Your task to perform on an android device: turn off notifications in google photos Image 0: 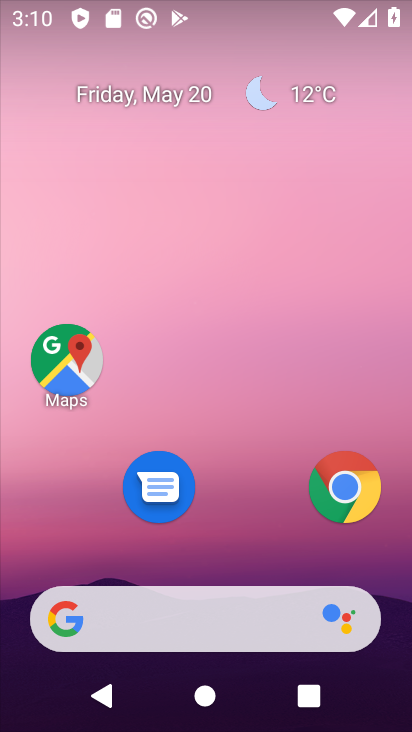
Step 0: drag from (256, 542) to (196, 135)
Your task to perform on an android device: turn off notifications in google photos Image 1: 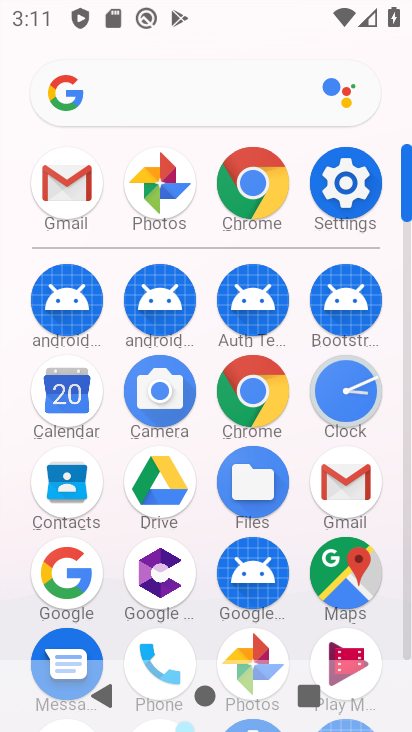
Step 1: click (266, 636)
Your task to perform on an android device: turn off notifications in google photos Image 2: 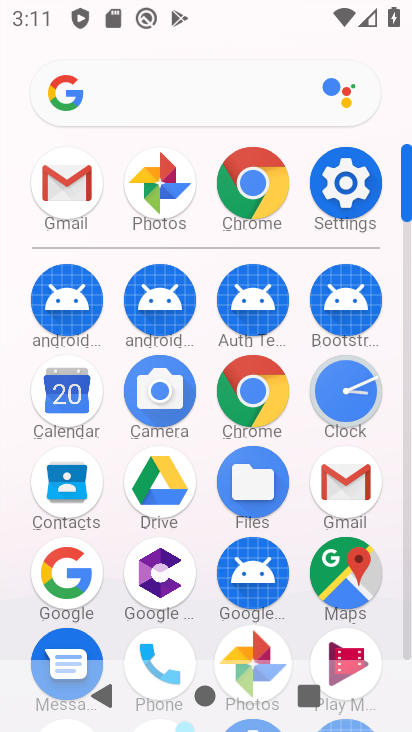
Step 2: click (259, 652)
Your task to perform on an android device: turn off notifications in google photos Image 3: 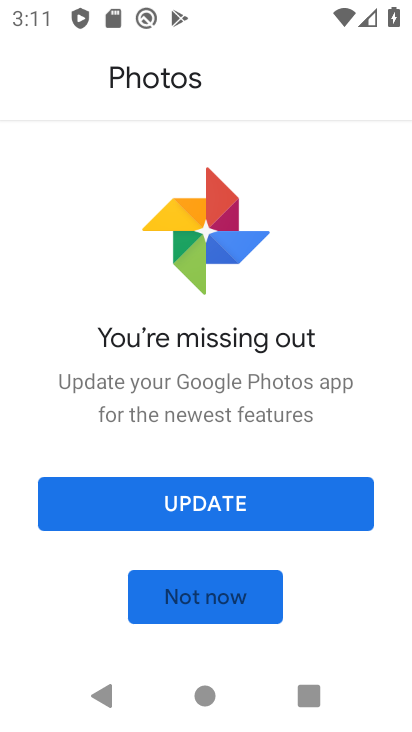
Step 3: click (199, 593)
Your task to perform on an android device: turn off notifications in google photos Image 4: 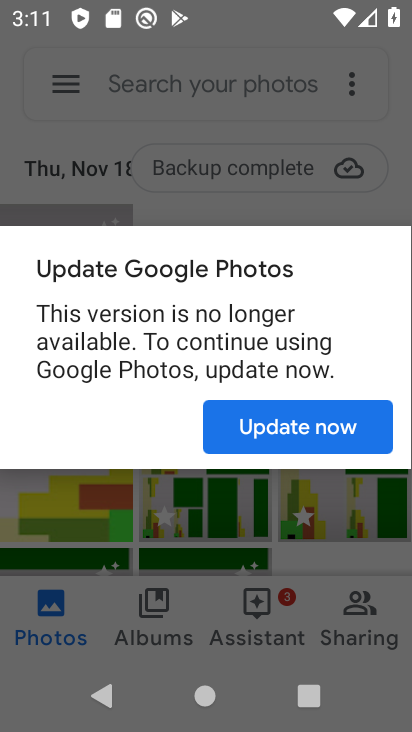
Step 4: click (312, 429)
Your task to perform on an android device: turn off notifications in google photos Image 5: 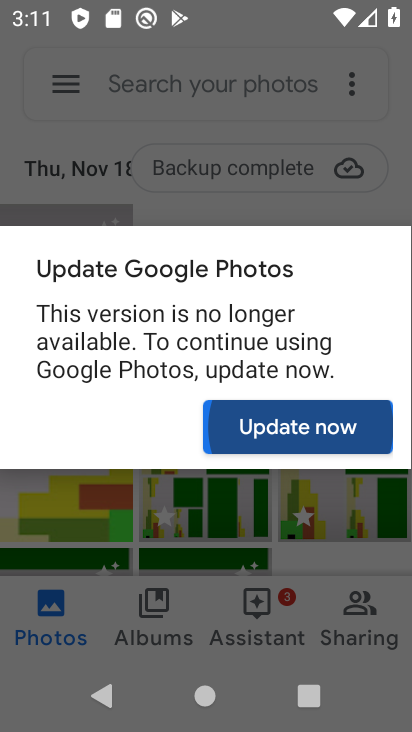
Step 5: click (319, 436)
Your task to perform on an android device: turn off notifications in google photos Image 6: 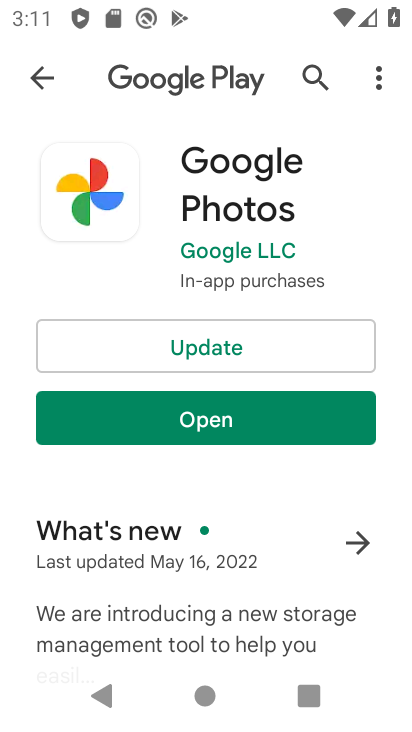
Step 6: click (218, 344)
Your task to perform on an android device: turn off notifications in google photos Image 7: 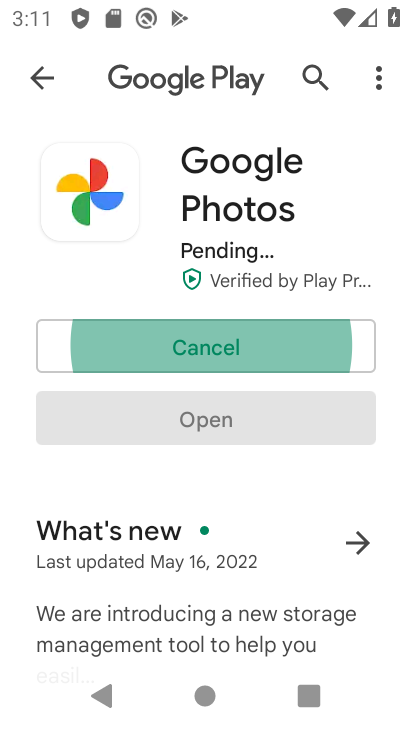
Step 7: click (218, 342)
Your task to perform on an android device: turn off notifications in google photos Image 8: 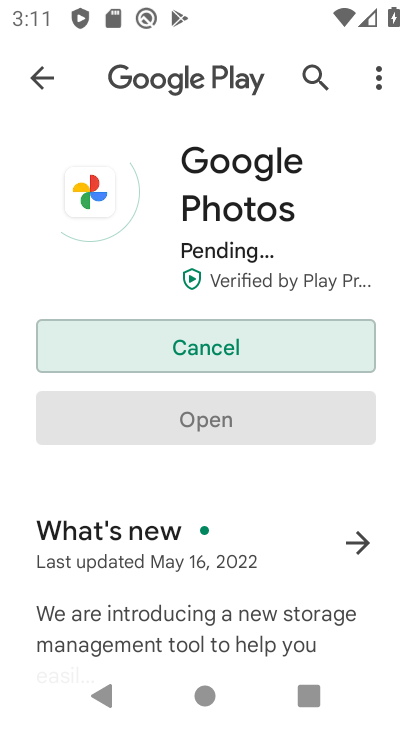
Step 8: click (218, 341)
Your task to perform on an android device: turn off notifications in google photos Image 9: 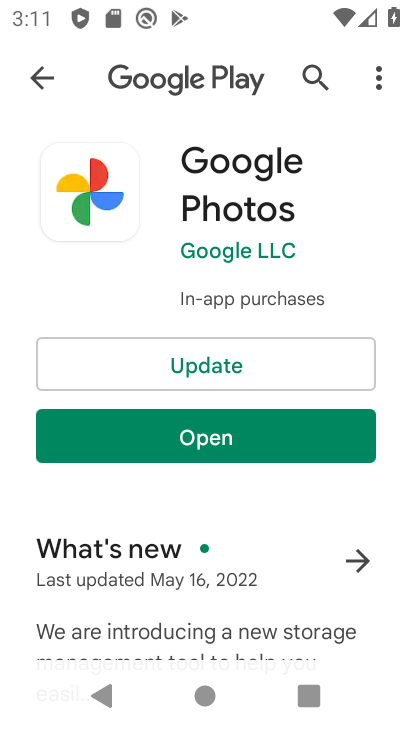
Step 9: click (200, 360)
Your task to perform on an android device: turn off notifications in google photos Image 10: 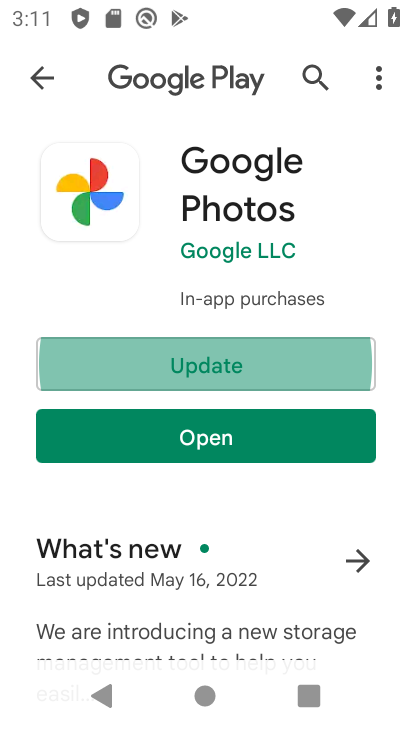
Step 10: click (200, 360)
Your task to perform on an android device: turn off notifications in google photos Image 11: 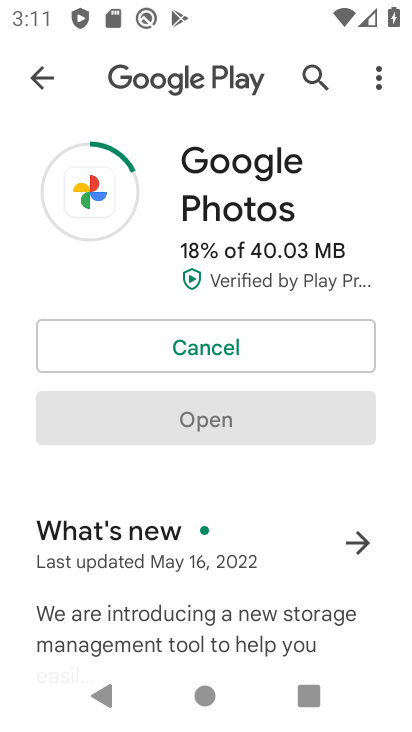
Step 11: click (214, 419)
Your task to perform on an android device: turn off notifications in google photos Image 12: 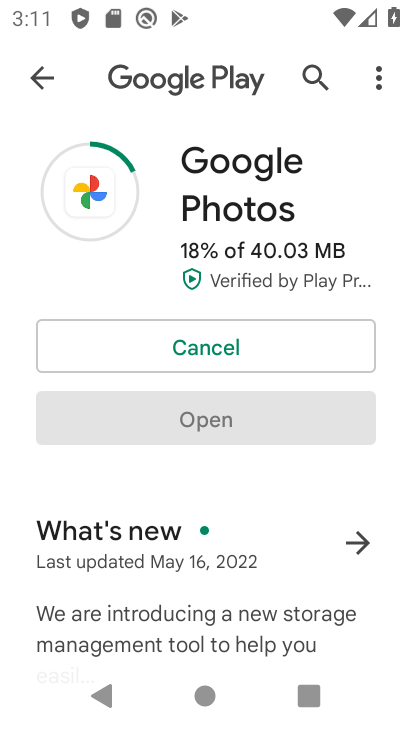
Step 12: click (215, 415)
Your task to perform on an android device: turn off notifications in google photos Image 13: 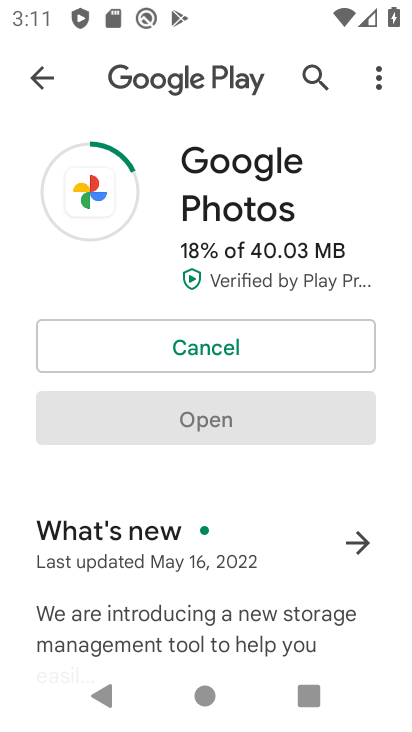
Step 13: click (215, 415)
Your task to perform on an android device: turn off notifications in google photos Image 14: 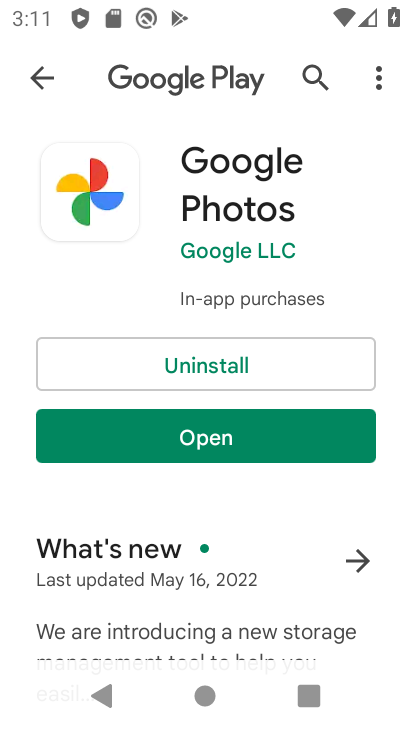
Step 14: click (221, 439)
Your task to perform on an android device: turn off notifications in google photos Image 15: 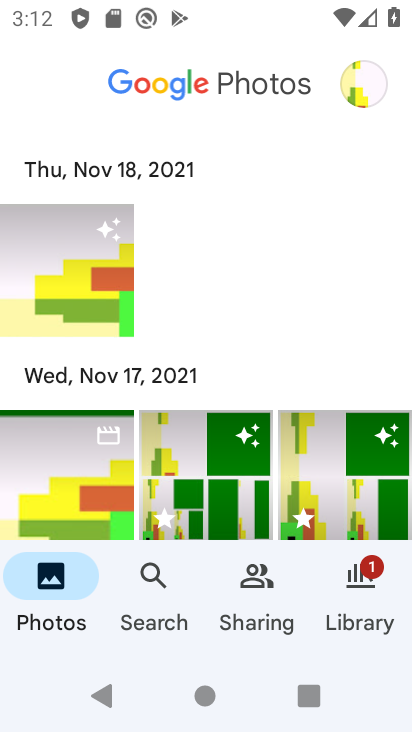
Step 15: task complete